Your task to perform on an android device: Go to privacy settings Image 0: 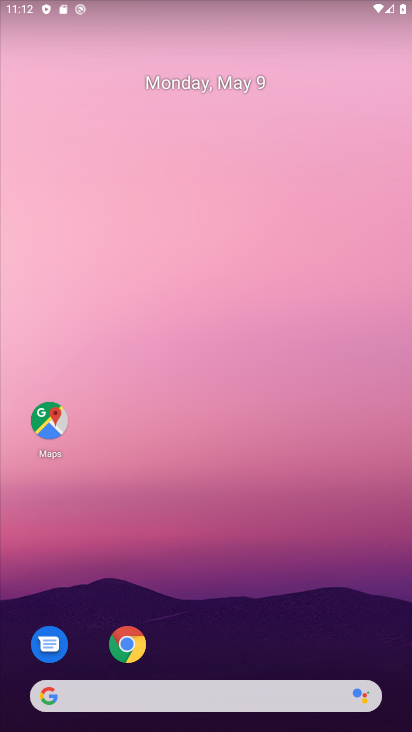
Step 0: drag from (281, 410) to (253, 147)
Your task to perform on an android device: Go to privacy settings Image 1: 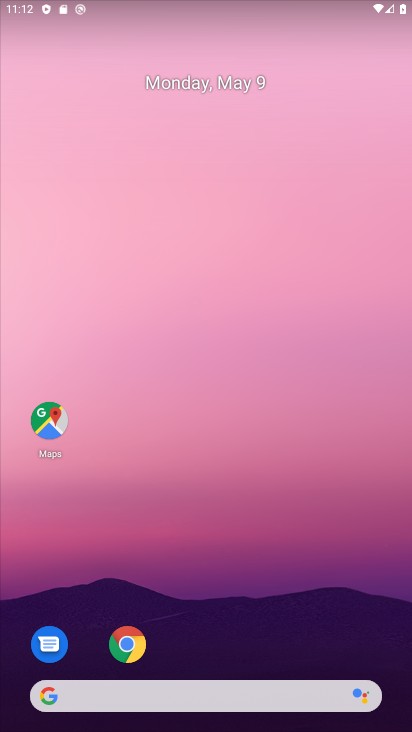
Step 1: drag from (259, 572) to (277, 97)
Your task to perform on an android device: Go to privacy settings Image 2: 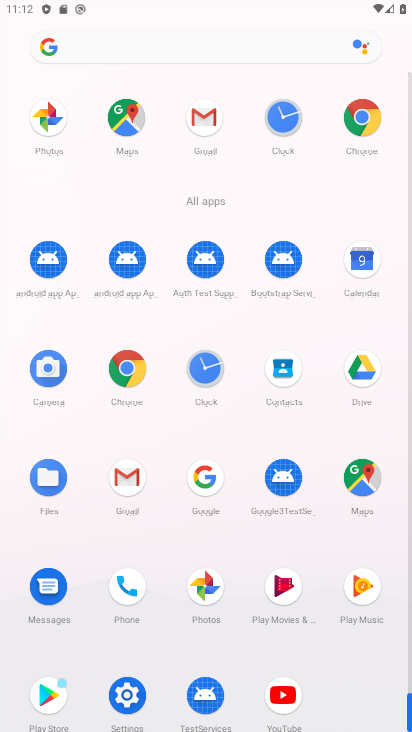
Step 2: click (124, 703)
Your task to perform on an android device: Go to privacy settings Image 3: 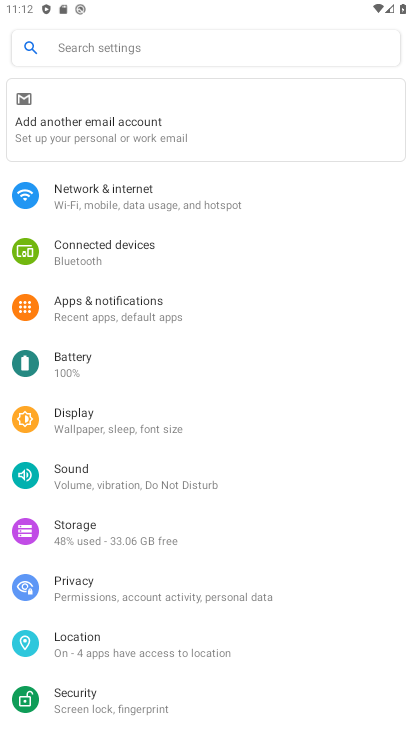
Step 3: click (133, 587)
Your task to perform on an android device: Go to privacy settings Image 4: 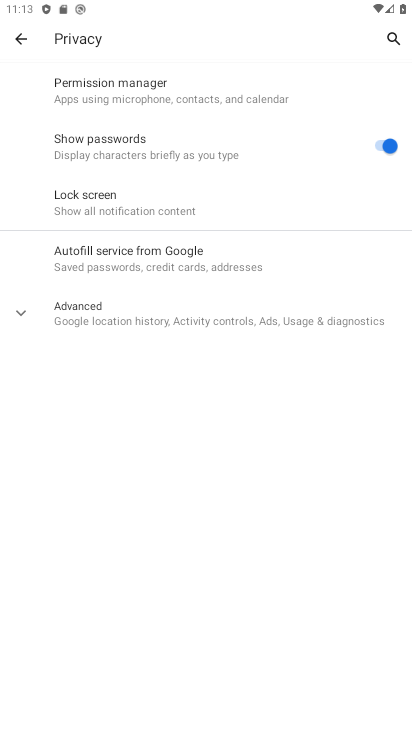
Step 4: task complete